Your task to perform on an android device: Open calendar and show me the first week of next month Image 0: 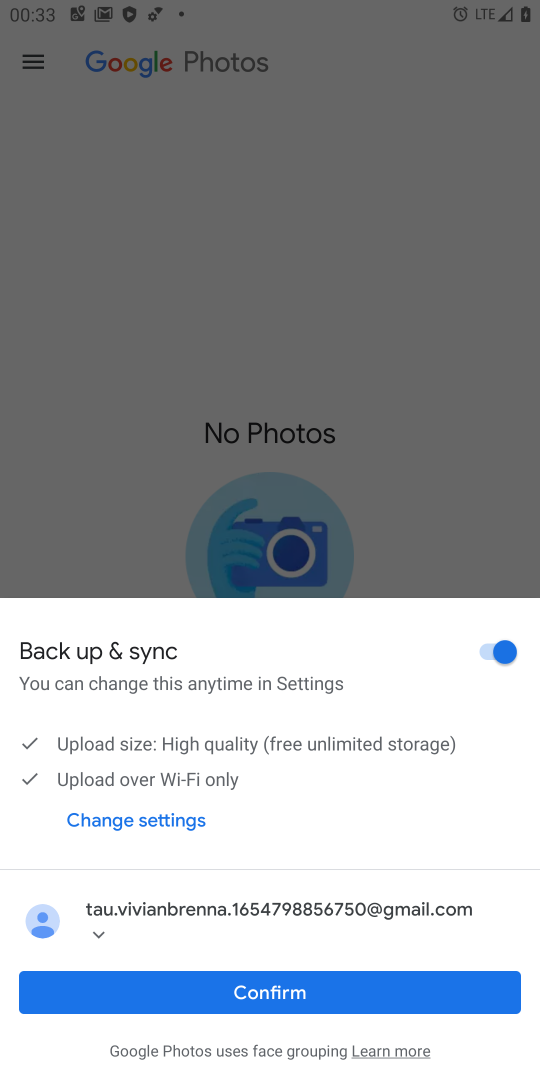
Step 0: press home button
Your task to perform on an android device: Open calendar and show me the first week of next month Image 1: 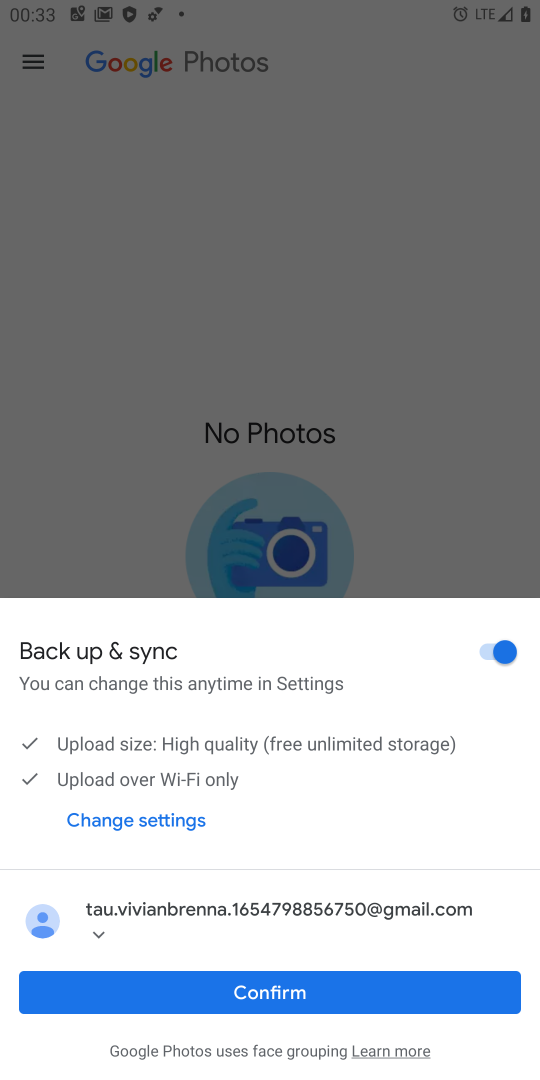
Step 1: press home button
Your task to perform on an android device: Open calendar and show me the first week of next month Image 2: 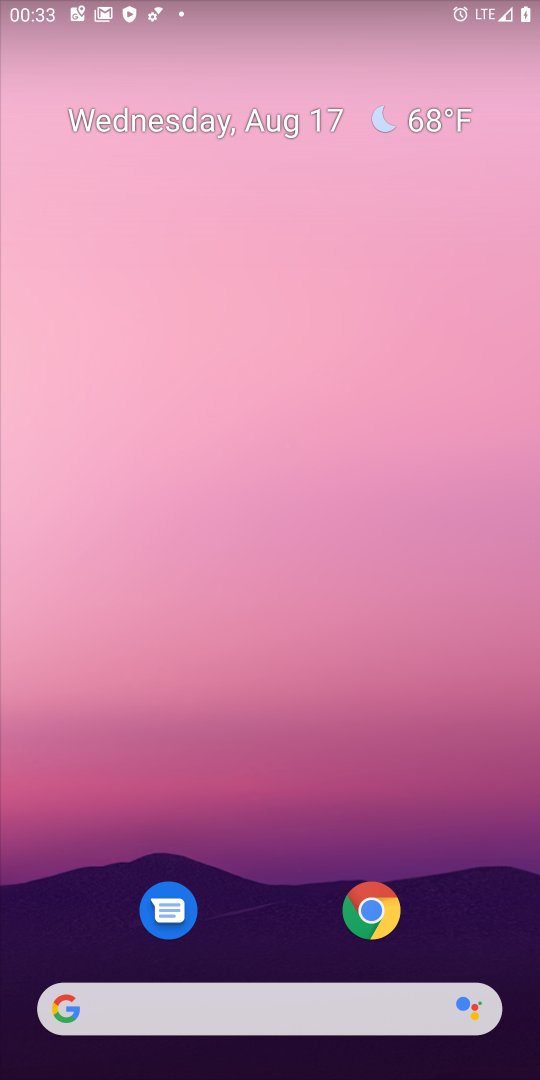
Step 2: drag from (267, 909) to (307, 47)
Your task to perform on an android device: Open calendar and show me the first week of next month Image 3: 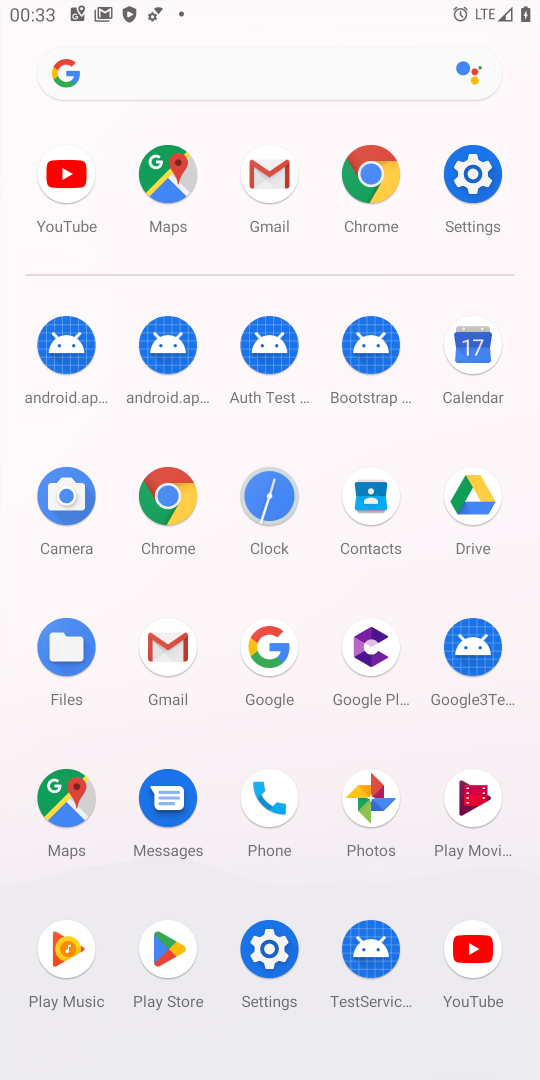
Step 3: click (458, 343)
Your task to perform on an android device: Open calendar and show me the first week of next month Image 4: 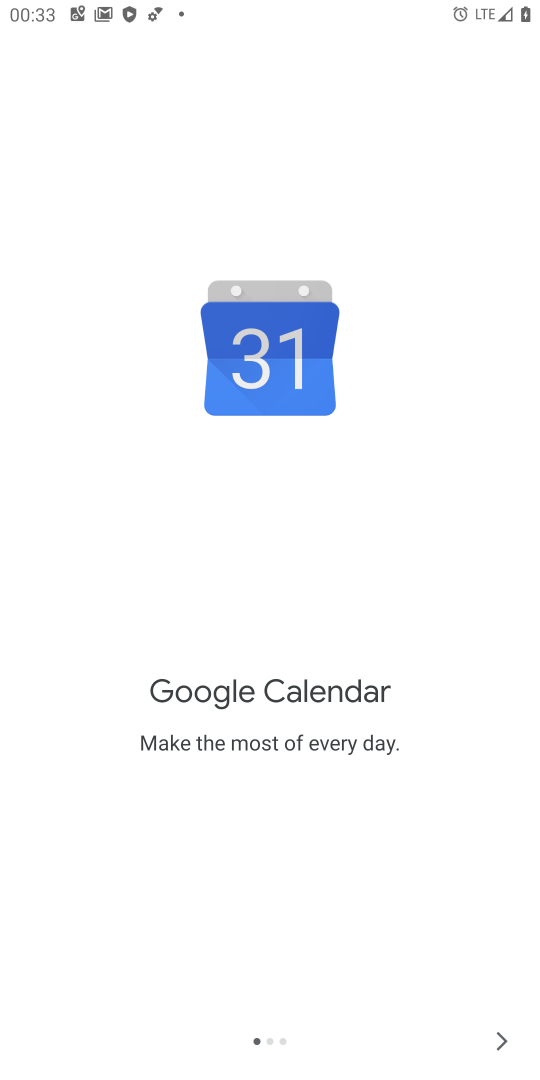
Step 4: click (500, 1034)
Your task to perform on an android device: Open calendar and show me the first week of next month Image 5: 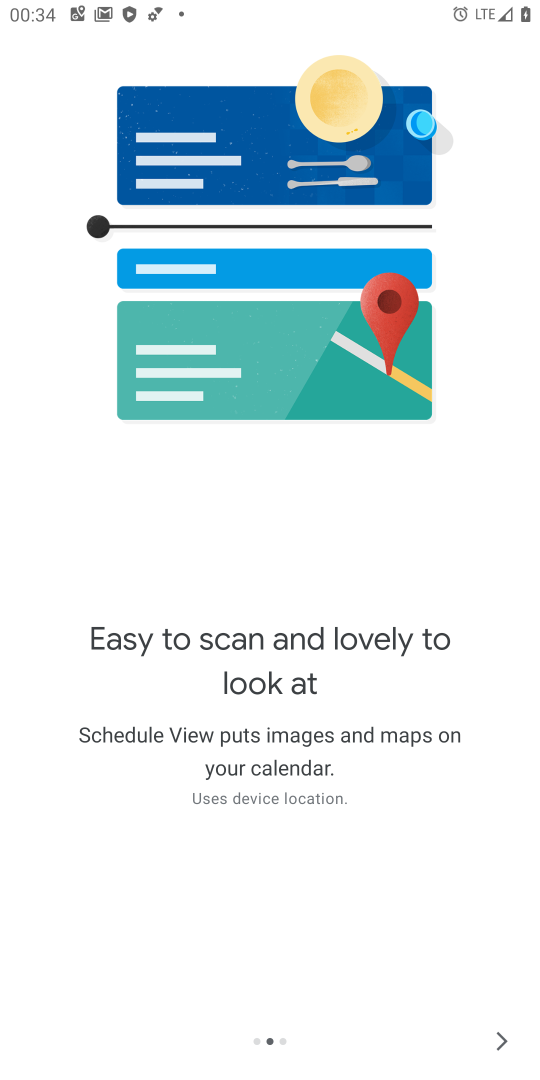
Step 5: click (499, 1033)
Your task to perform on an android device: Open calendar and show me the first week of next month Image 6: 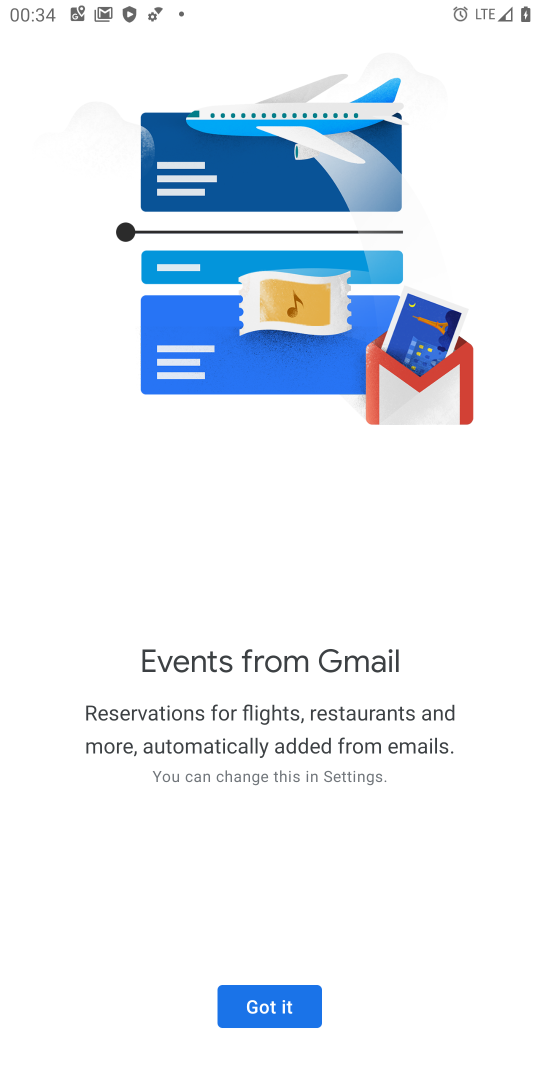
Step 6: click (273, 1002)
Your task to perform on an android device: Open calendar and show me the first week of next month Image 7: 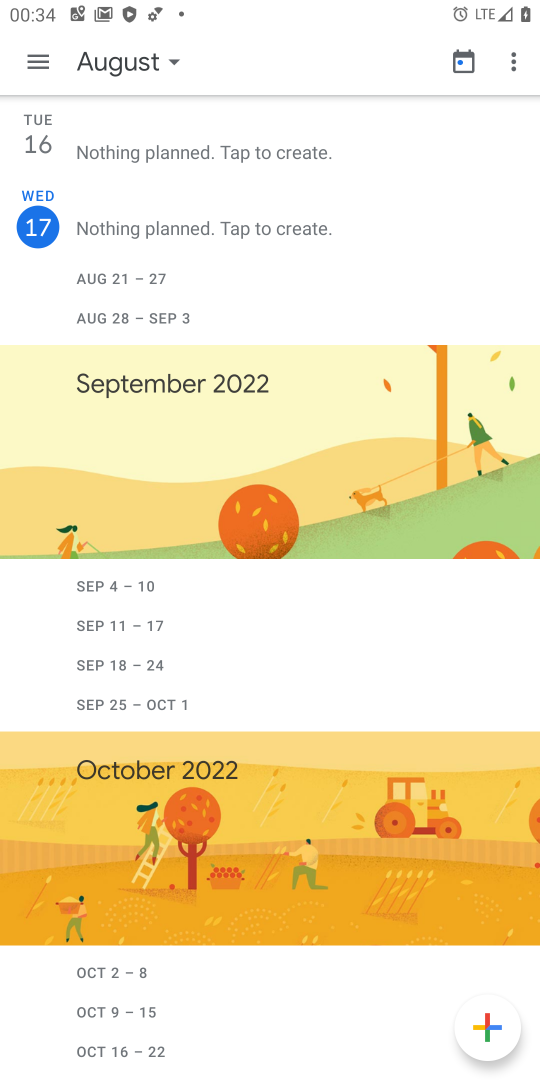
Step 7: click (95, 59)
Your task to perform on an android device: Open calendar and show me the first week of next month Image 8: 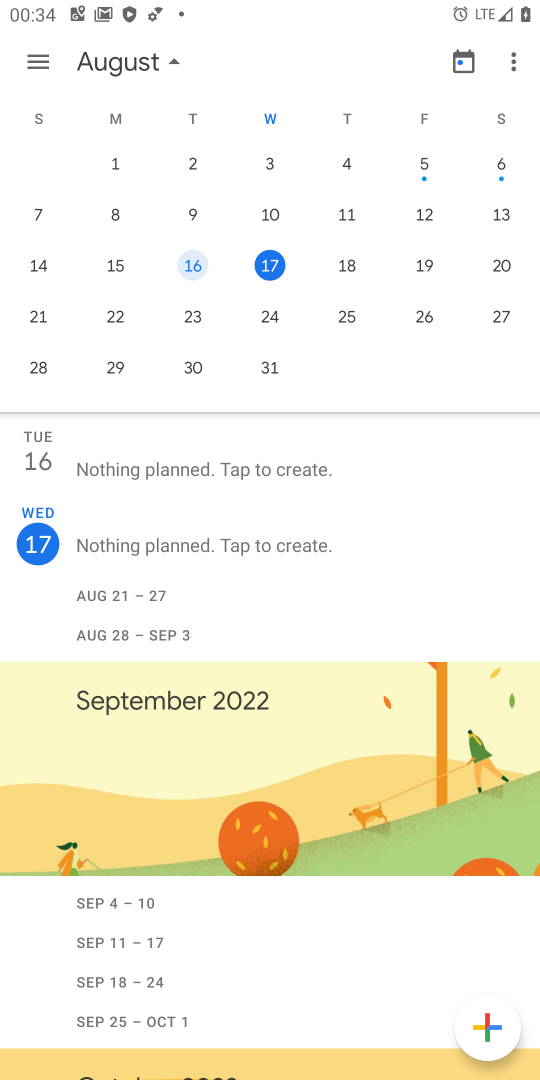
Step 8: drag from (465, 283) to (0, 299)
Your task to perform on an android device: Open calendar and show me the first week of next month Image 9: 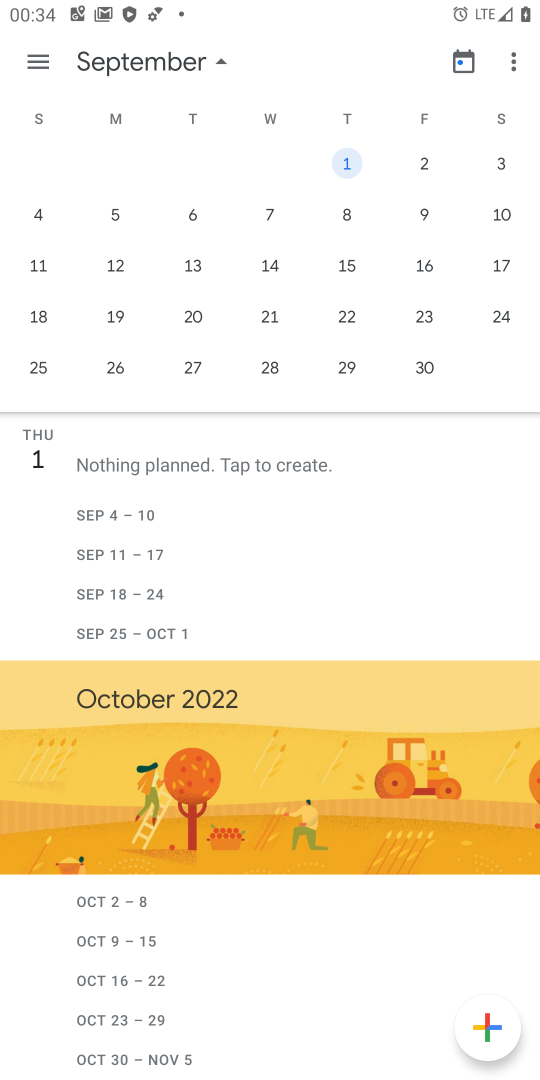
Step 9: click (177, 214)
Your task to perform on an android device: Open calendar and show me the first week of next month Image 10: 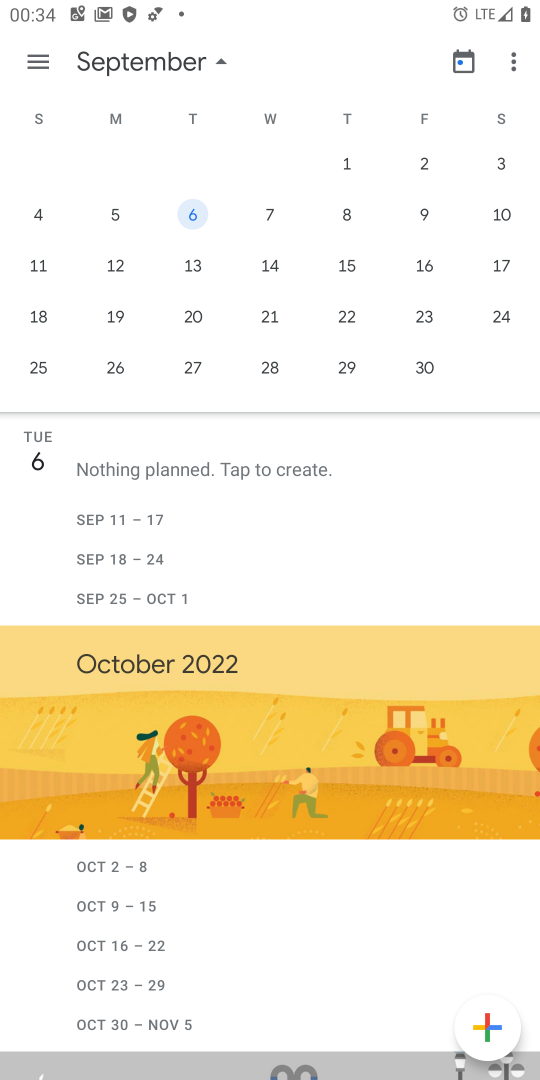
Step 10: click (37, 55)
Your task to perform on an android device: Open calendar and show me the first week of next month Image 11: 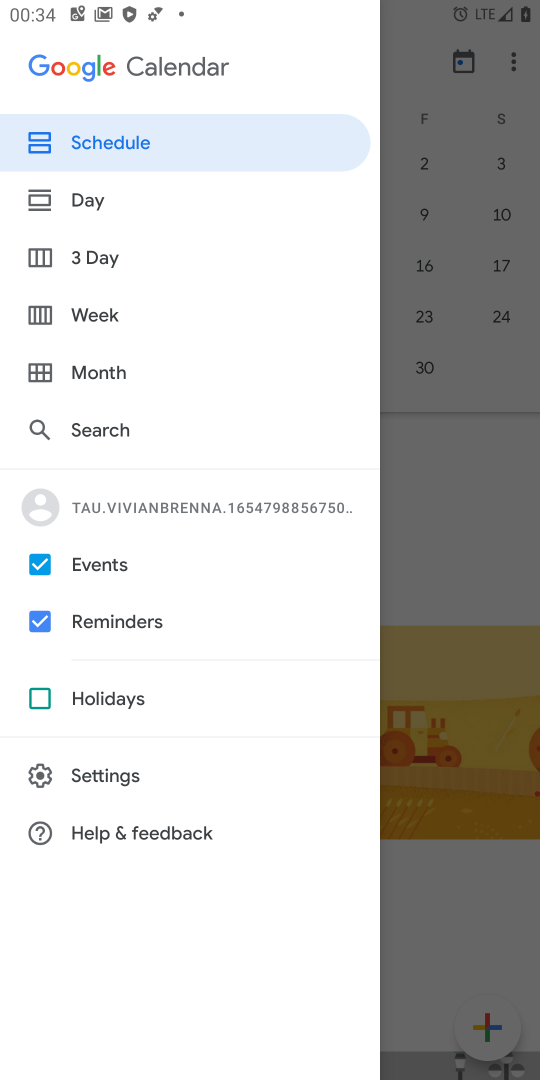
Step 11: click (106, 315)
Your task to perform on an android device: Open calendar and show me the first week of next month Image 12: 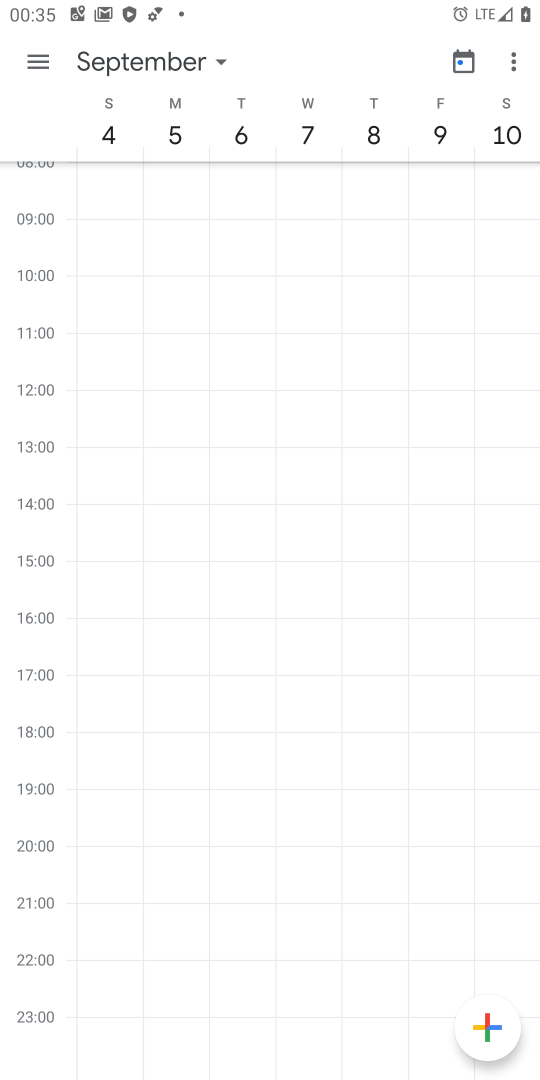
Step 12: task complete